Your task to perform on an android device: Open eBay Image 0: 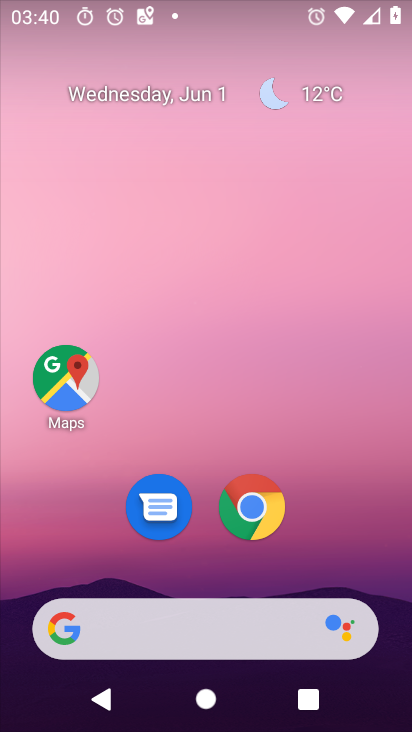
Step 0: click (258, 509)
Your task to perform on an android device: Open eBay Image 1: 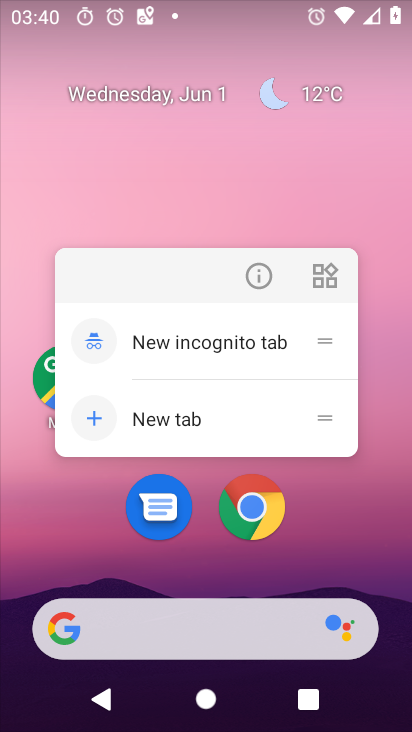
Step 1: click (258, 509)
Your task to perform on an android device: Open eBay Image 2: 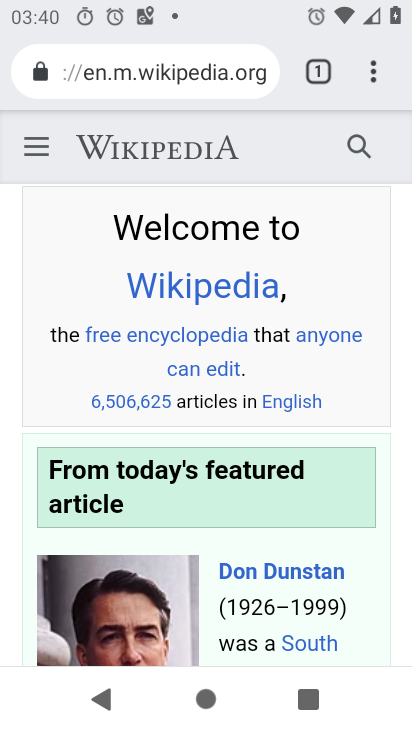
Step 2: click (110, 83)
Your task to perform on an android device: Open eBay Image 3: 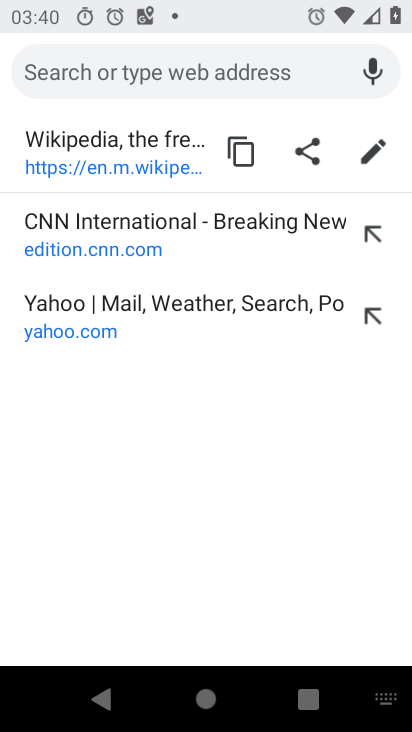
Step 3: type "ebay"
Your task to perform on an android device: Open eBay Image 4: 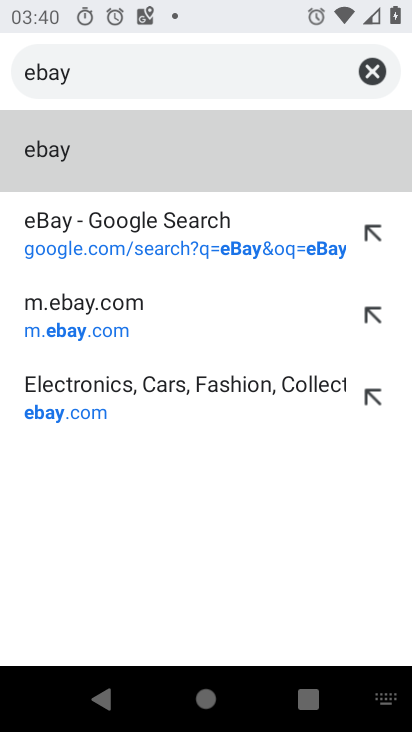
Step 4: click (49, 159)
Your task to perform on an android device: Open eBay Image 5: 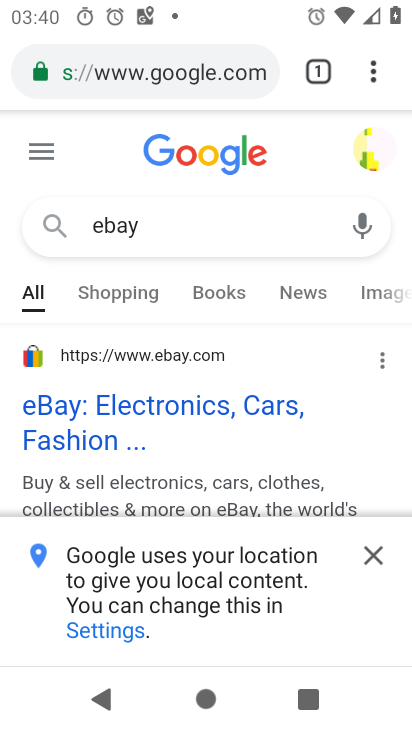
Step 5: click (58, 403)
Your task to perform on an android device: Open eBay Image 6: 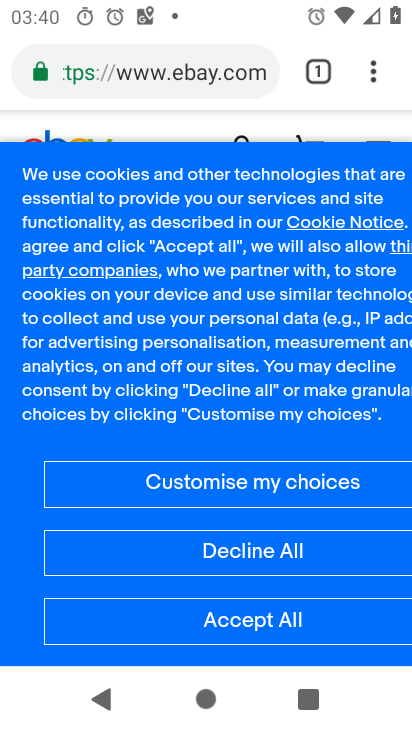
Step 6: task complete